Your task to perform on an android device: Open the calendar and show me this week's events Image 0: 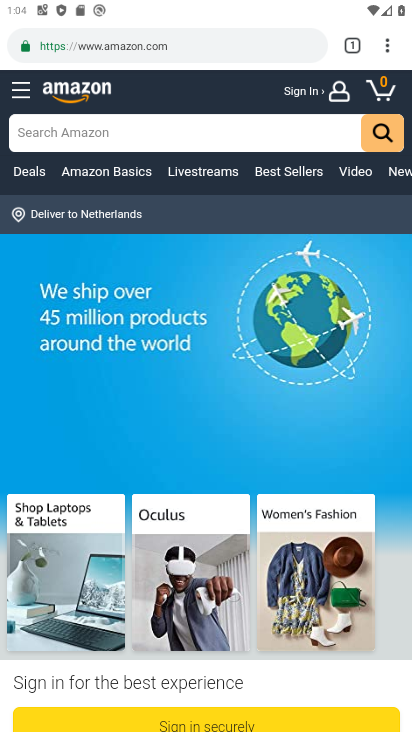
Step 0: press home button
Your task to perform on an android device: Open the calendar and show me this week's events Image 1: 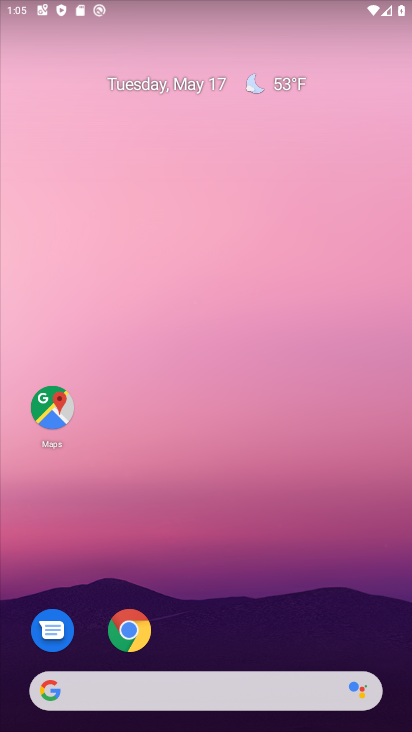
Step 1: drag from (329, 539) to (351, 57)
Your task to perform on an android device: Open the calendar and show me this week's events Image 2: 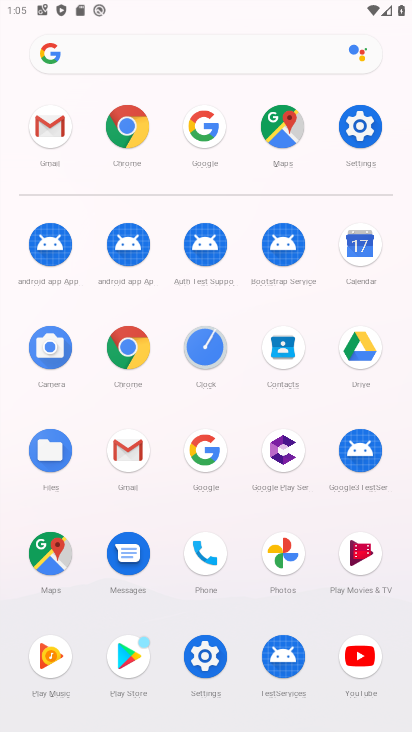
Step 2: click (354, 273)
Your task to perform on an android device: Open the calendar and show me this week's events Image 3: 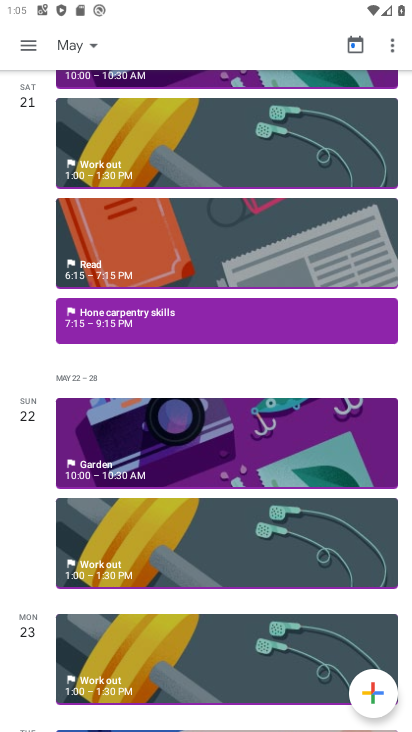
Step 3: task complete